Your task to perform on an android device: Play the new Bruno Mars video on YouTube Image 0: 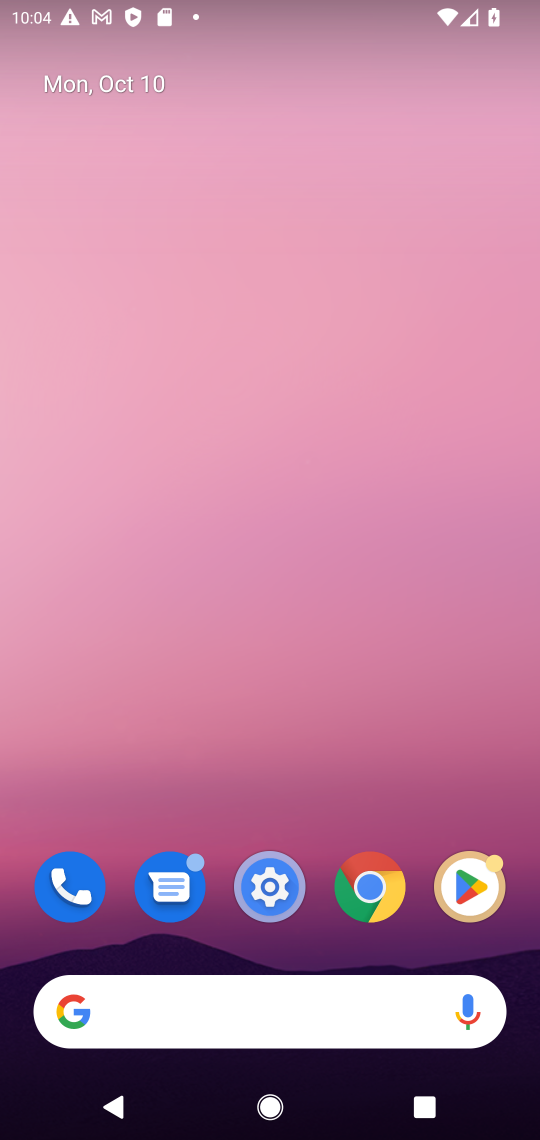
Step 0: drag from (150, 912) to (173, 259)
Your task to perform on an android device: Play the new Bruno Mars video on YouTube Image 1: 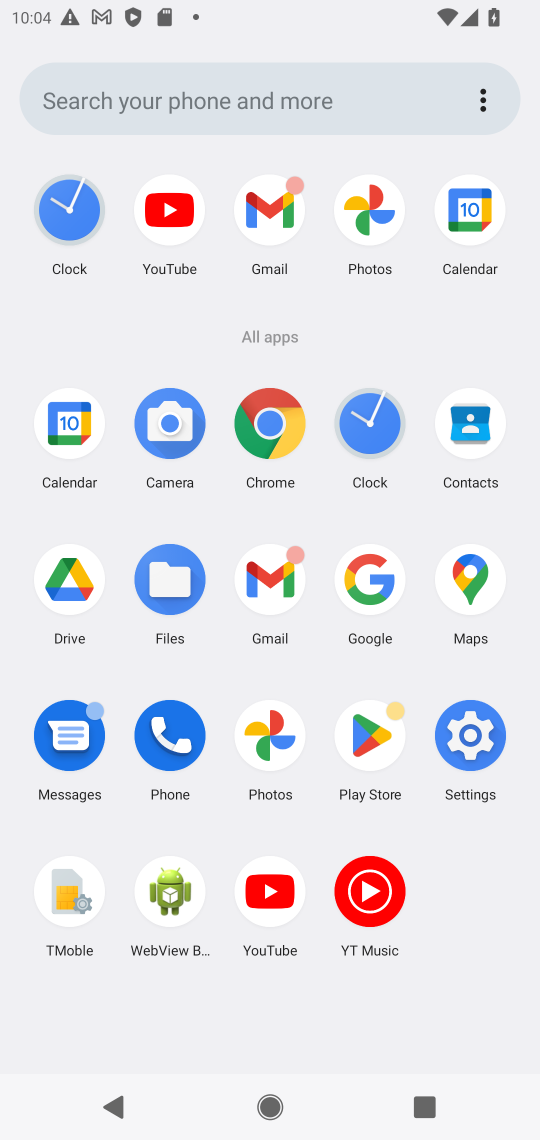
Step 1: click (365, 571)
Your task to perform on an android device: Play the new Bruno Mars video on YouTube Image 2: 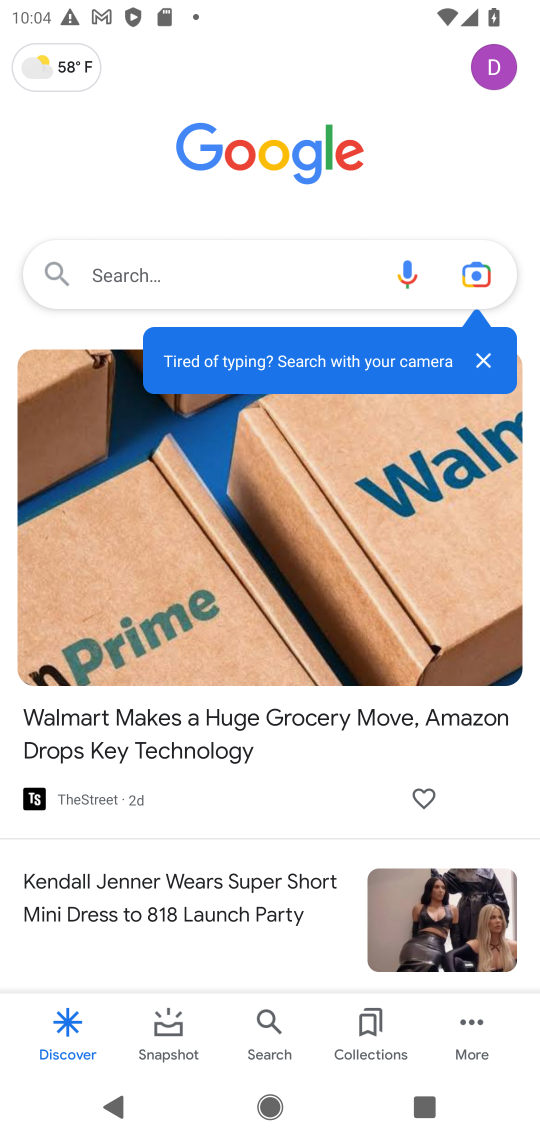
Step 2: press home button
Your task to perform on an android device: Play the new Bruno Mars video on YouTube Image 3: 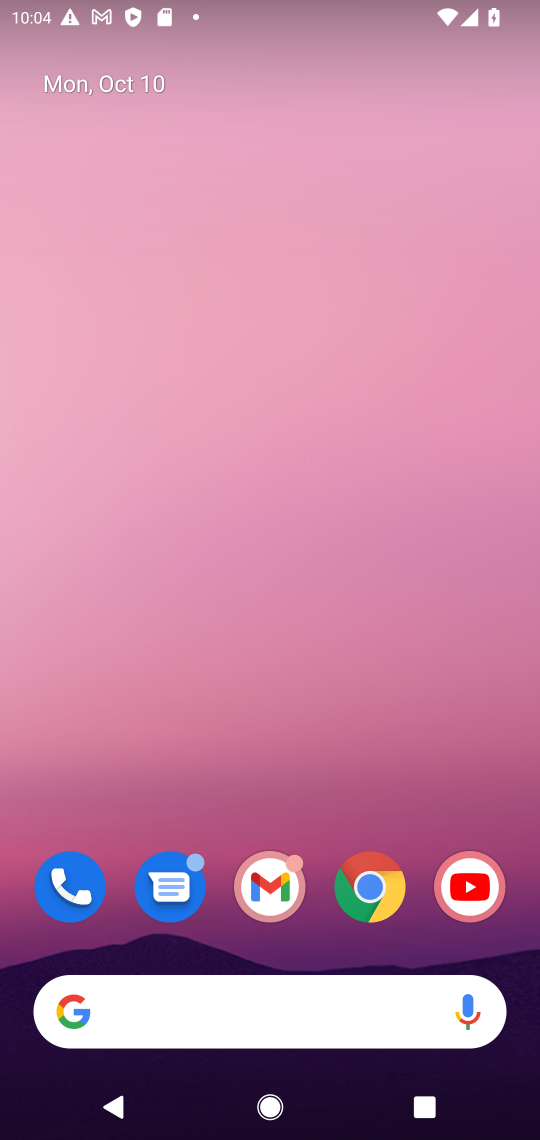
Step 3: click (479, 877)
Your task to perform on an android device: Play the new Bruno Mars video on YouTube Image 4: 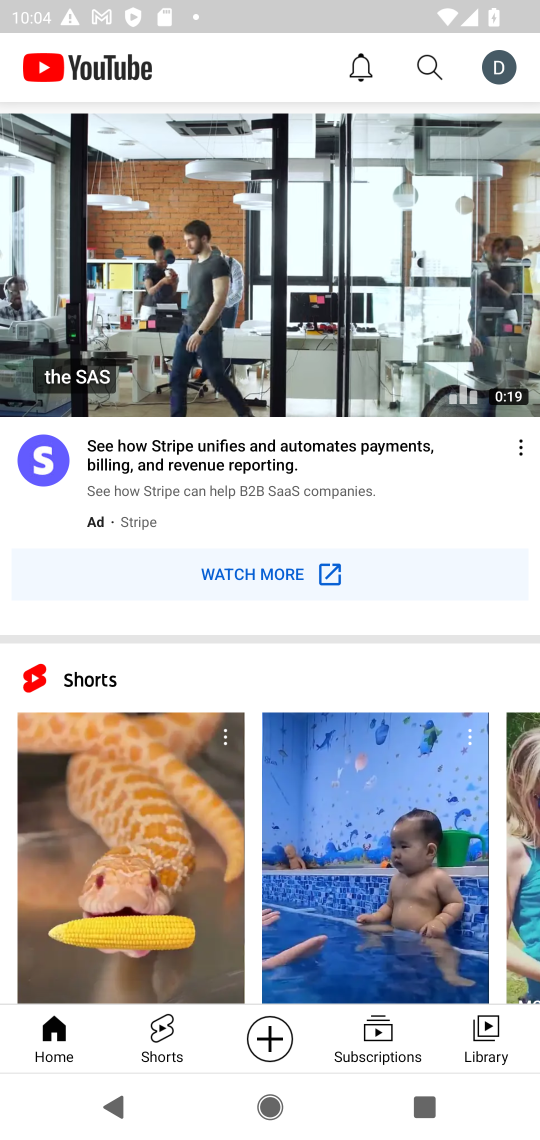
Step 4: click (413, 67)
Your task to perform on an android device: Play the new Bruno Mars video on YouTube Image 5: 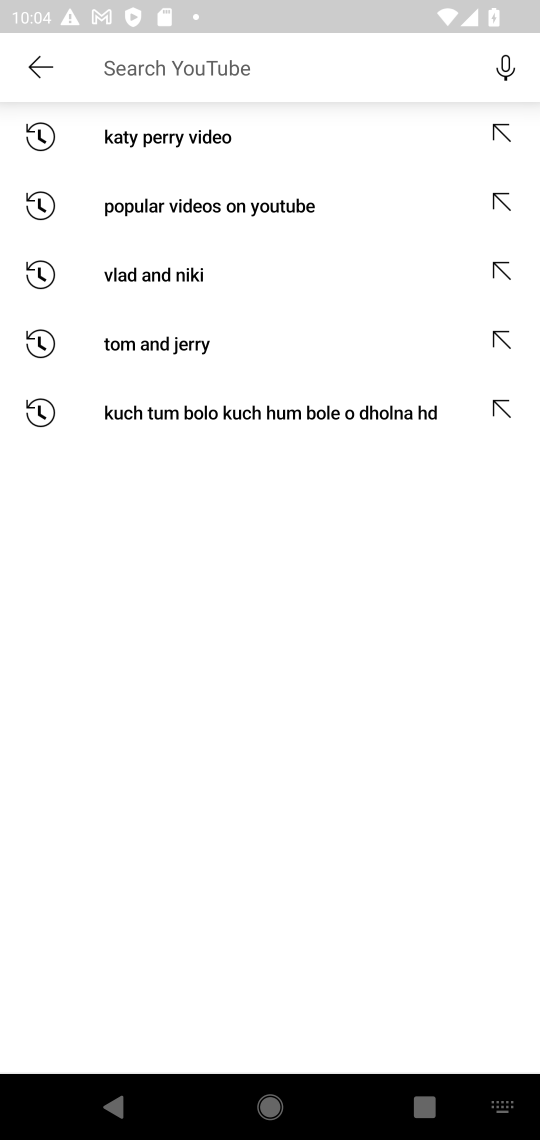
Step 5: click (215, 58)
Your task to perform on an android device: Play the new Bruno Mars video on YouTube Image 6: 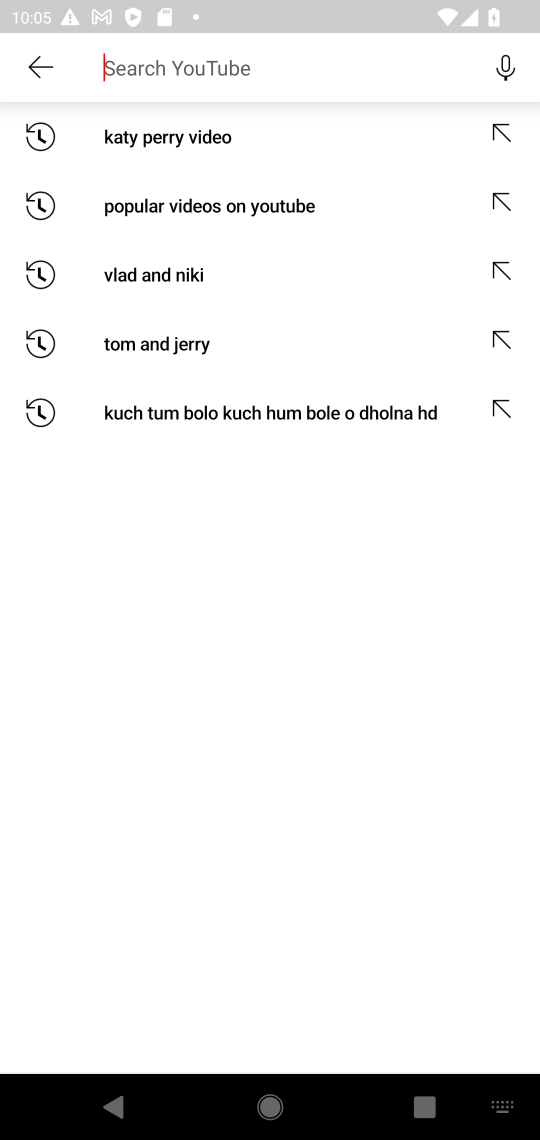
Step 6: type "he new Bruno Mars video "
Your task to perform on an android device: Play the new Bruno Mars video on YouTube Image 7: 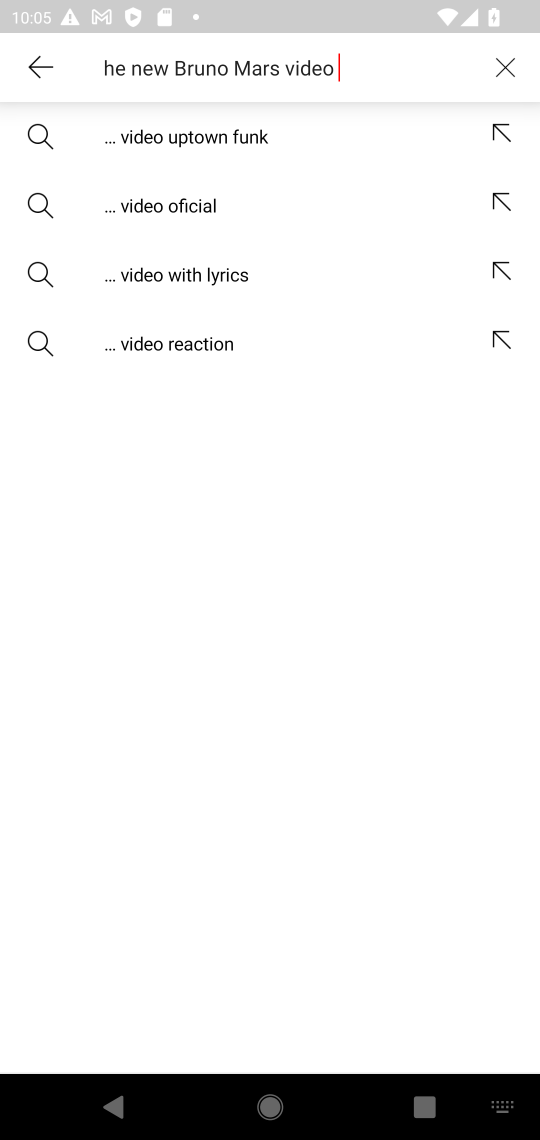
Step 7: click (167, 217)
Your task to perform on an android device: Play the new Bruno Mars video on YouTube Image 8: 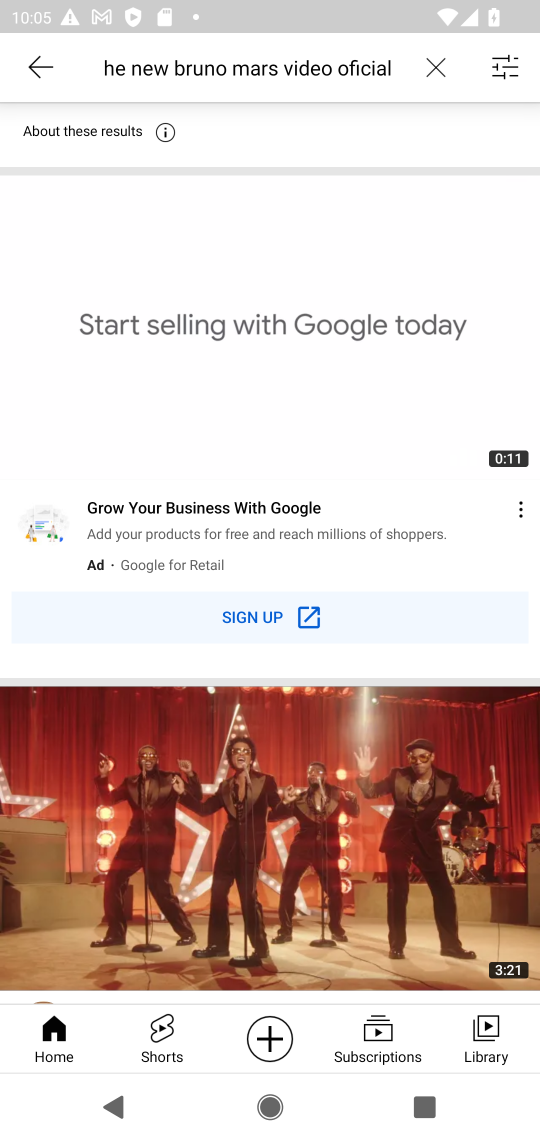
Step 8: task complete